Your task to perform on an android device: delete location history Image 0: 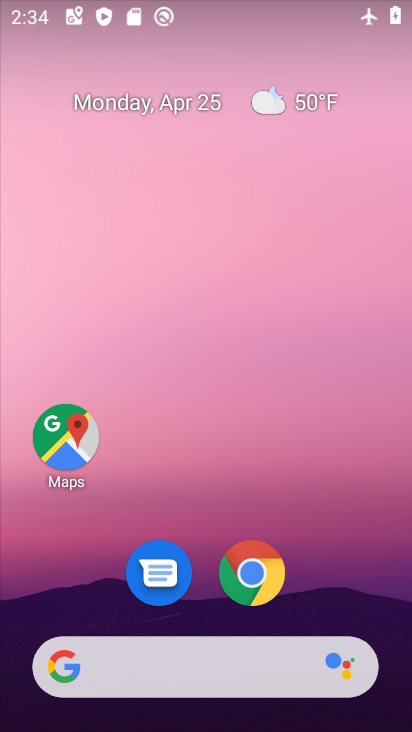
Step 0: drag from (337, 545) to (320, 24)
Your task to perform on an android device: delete location history Image 1: 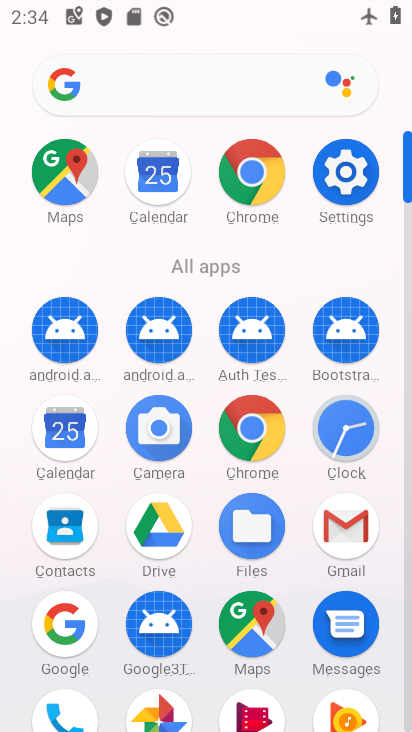
Step 1: click (358, 165)
Your task to perform on an android device: delete location history Image 2: 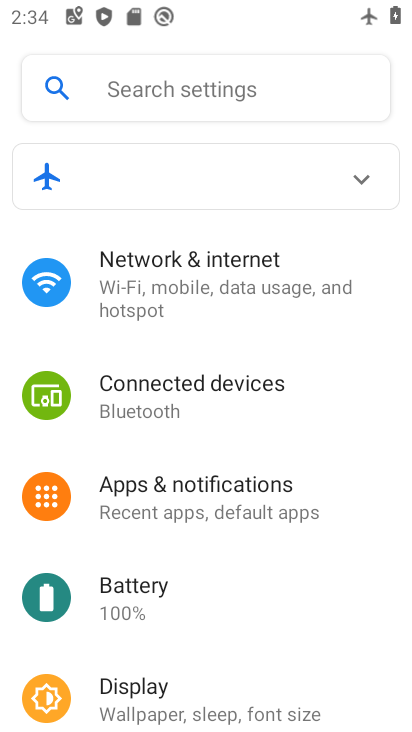
Step 2: press home button
Your task to perform on an android device: delete location history Image 3: 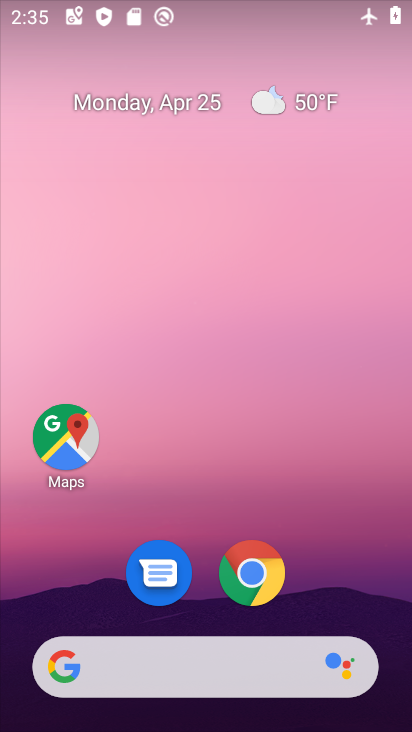
Step 3: drag from (363, 366) to (408, 158)
Your task to perform on an android device: delete location history Image 4: 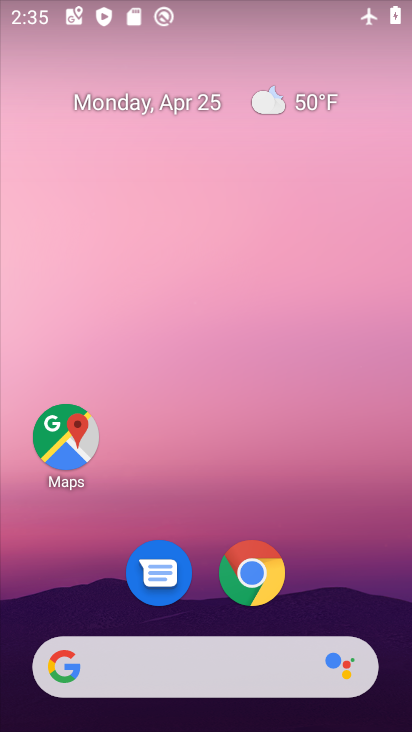
Step 4: drag from (333, 578) to (306, 25)
Your task to perform on an android device: delete location history Image 5: 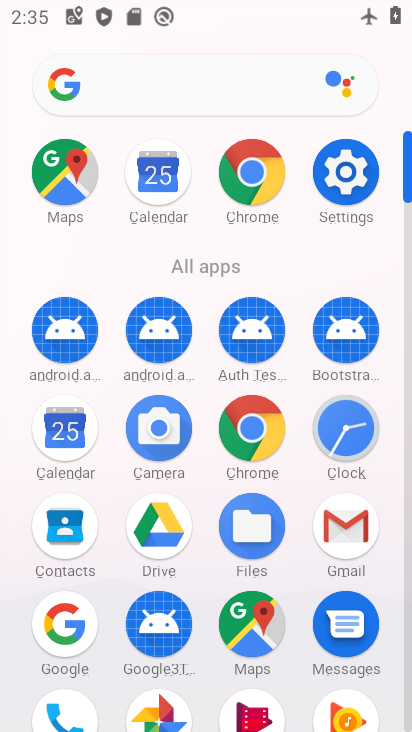
Step 5: click (352, 174)
Your task to perform on an android device: delete location history Image 6: 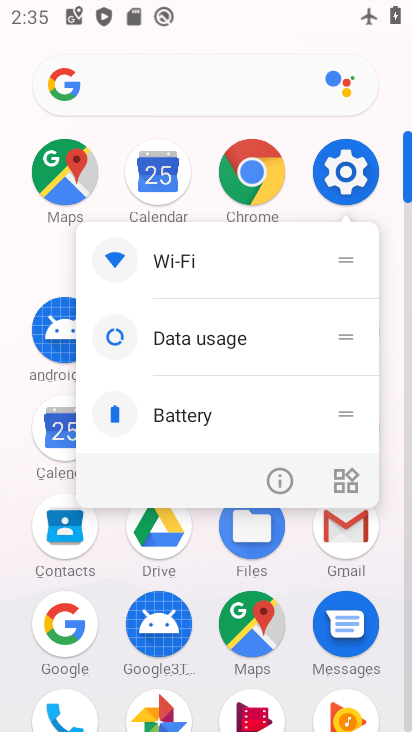
Step 6: click (352, 174)
Your task to perform on an android device: delete location history Image 7: 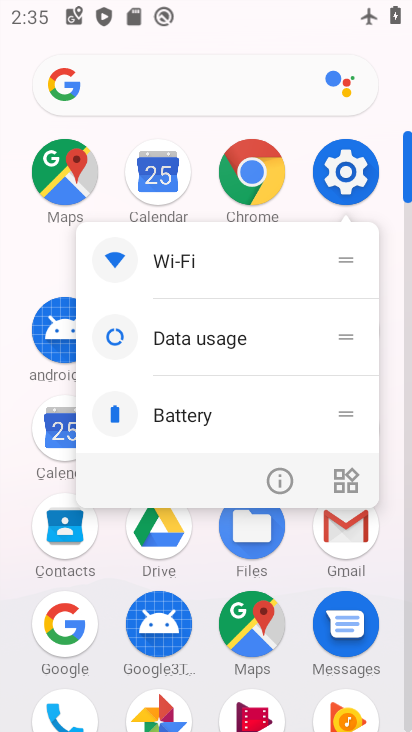
Step 7: click (64, 171)
Your task to perform on an android device: delete location history Image 8: 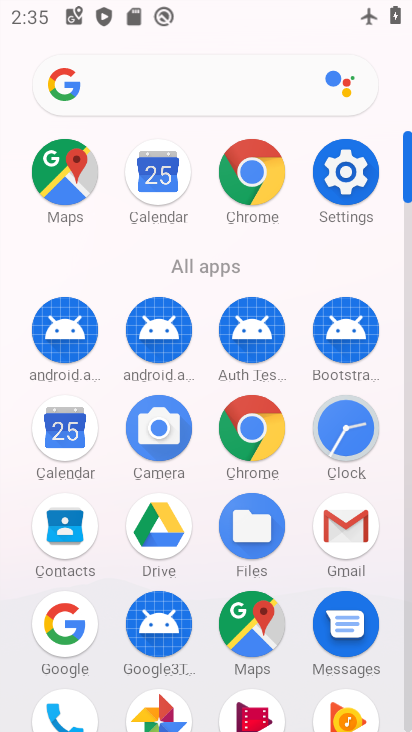
Step 8: click (55, 177)
Your task to perform on an android device: delete location history Image 9: 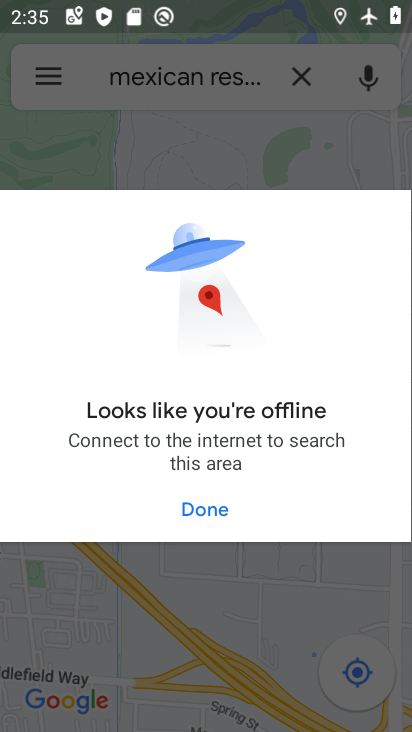
Step 9: click (223, 509)
Your task to perform on an android device: delete location history Image 10: 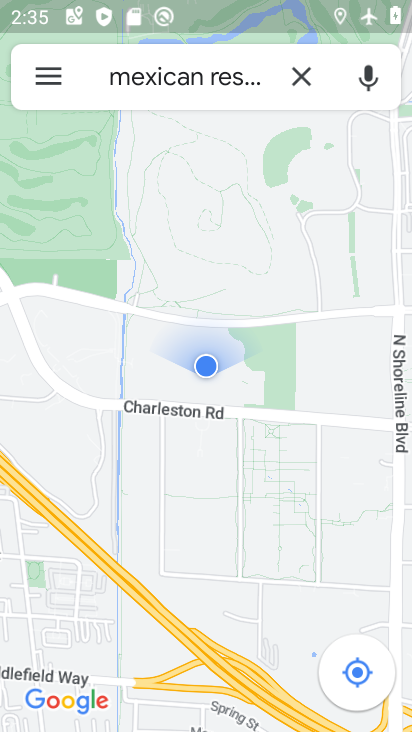
Step 10: click (47, 78)
Your task to perform on an android device: delete location history Image 11: 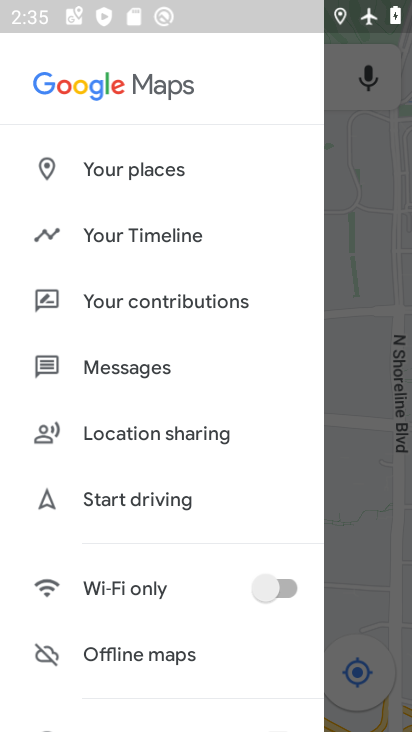
Step 11: click (148, 243)
Your task to perform on an android device: delete location history Image 12: 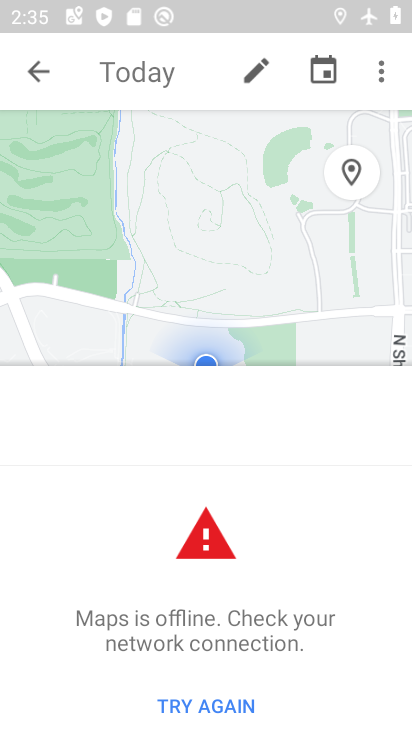
Step 12: click (214, 709)
Your task to perform on an android device: delete location history Image 13: 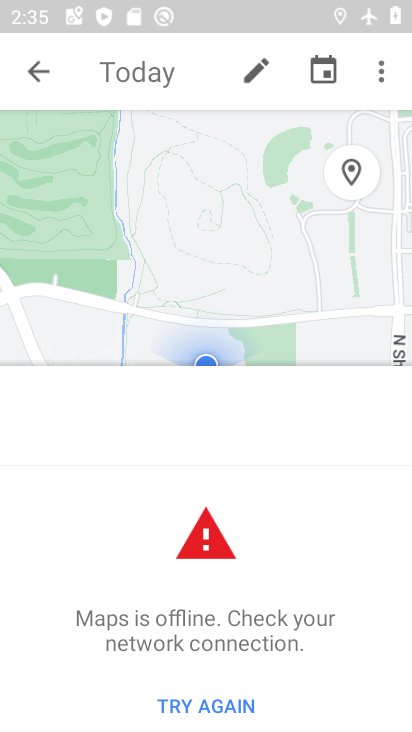
Step 13: click (372, 60)
Your task to perform on an android device: delete location history Image 14: 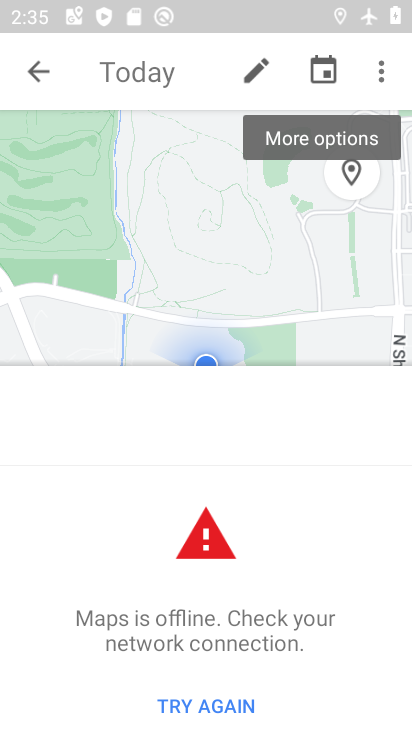
Step 14: click (372, 59)
Your task to perform on an android device: delete location history Image 15: 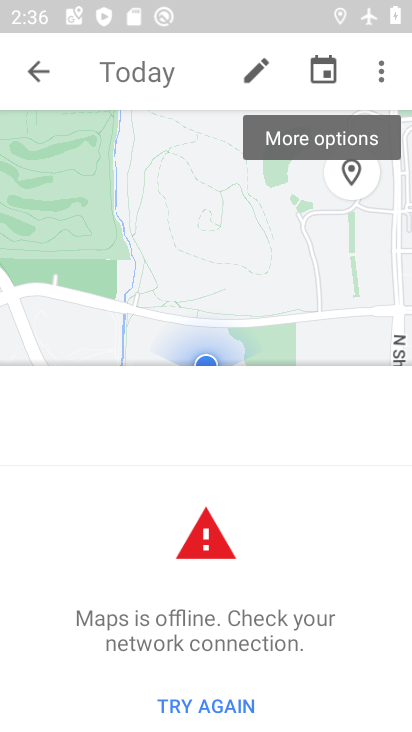
Step 15: click (371, 60)
Your task to perform on an android device: delete location history Image 16: 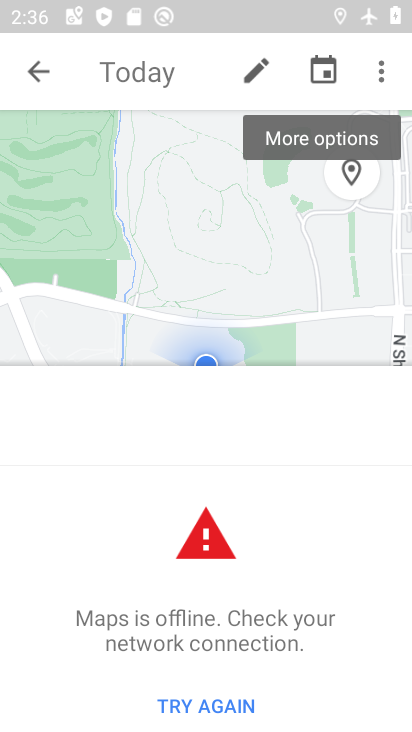
Step 16: click (375, 74)
Your task to perform on an android device: delete location history Image 17: 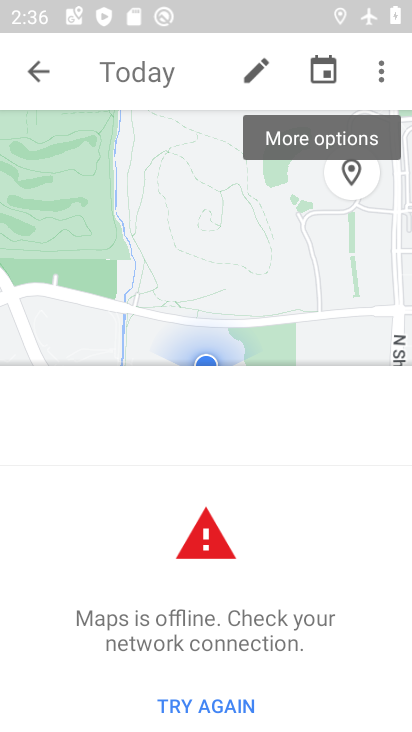
Step 17: click (375, 74)
Your task to perform on an android device: delete location history Image 18: 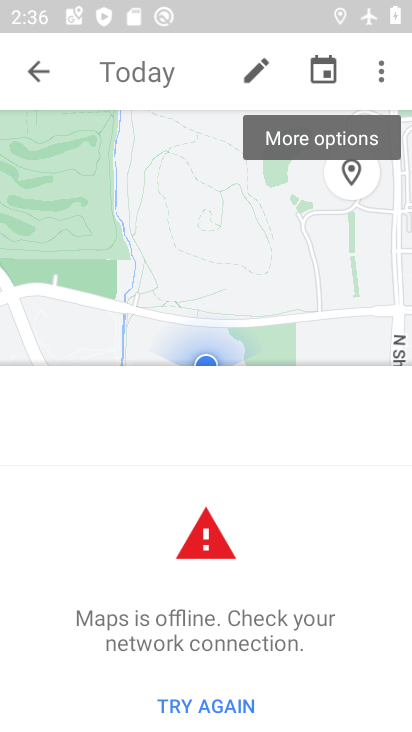
Step 18: click (373, 71)
Your task to perform on an android device: delete location history Image 19: 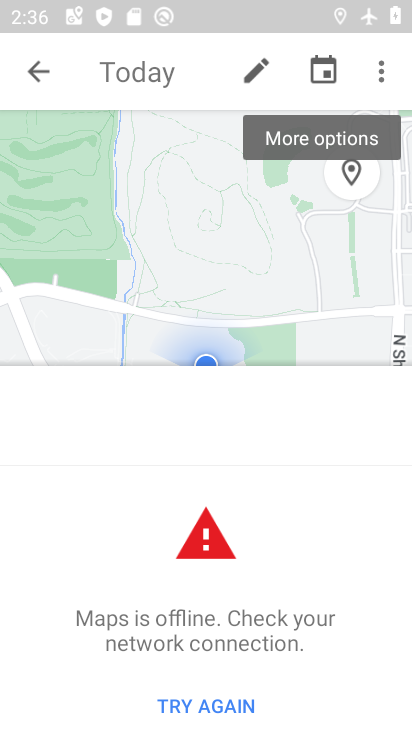
Step 19: click (383, 78)
Your task to perform on an android device: delete location history Image 20: 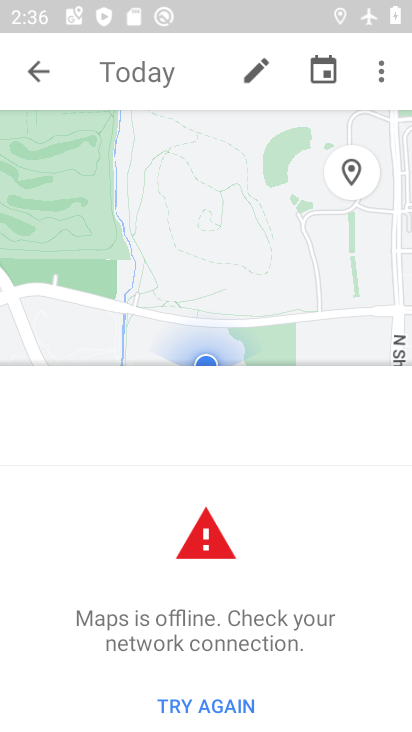
Step 20: click (388, 68)
Your task to perform on an android device: delete location history Image 21: 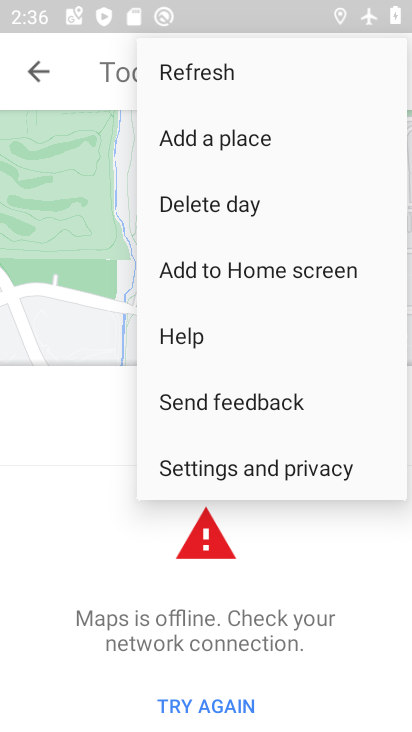
Step 21: click (192, 468)
Your task to perform on an android device: delete location history Image 22: 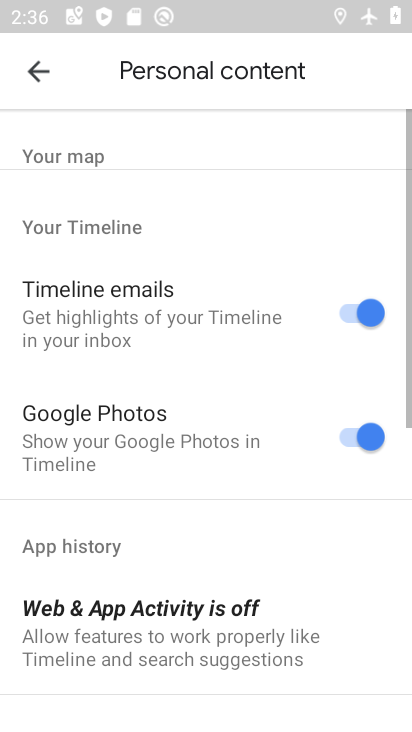
Step 22: drag from (152, 616) to (309, 186)
Your task to perform on an android device: delete location history Image 23: 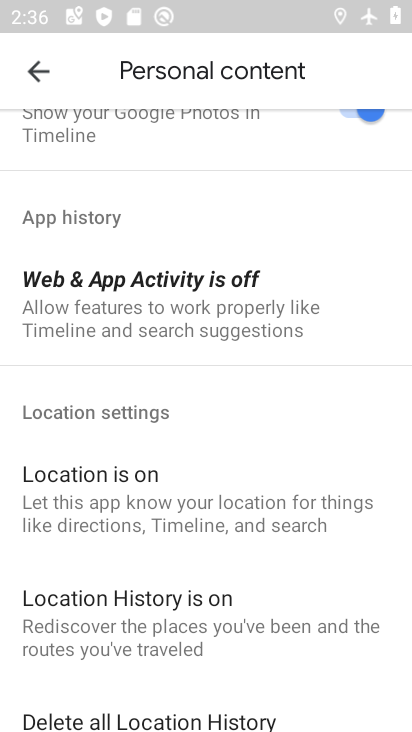
Step 23: drag from (255, 313) to (235, 565)
Your task to perform on an android device: delete location history Image 24: 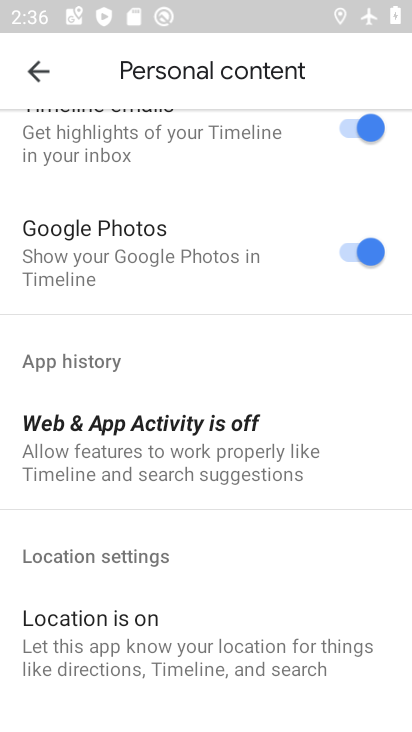
Step 24: drag from (194, 536) to (267, 149)
Your task to perform on an android device: delete location history Image 25: 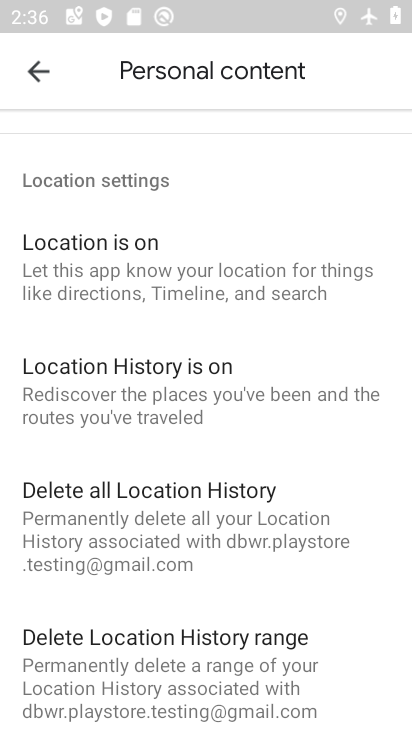
Step 25: click (151, 518)
Your task to perform on an android device: delete location history Image 26: 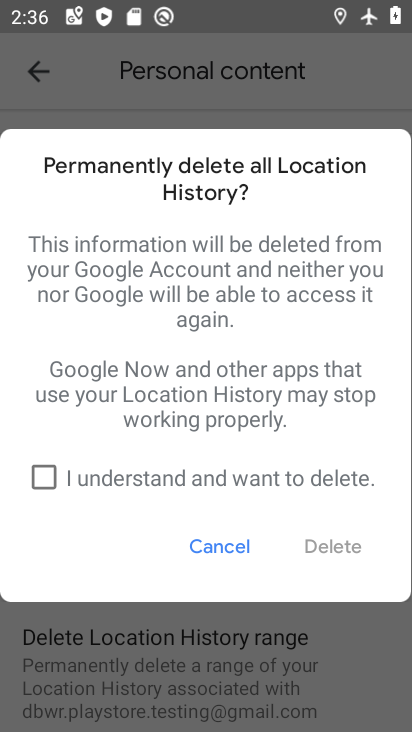
Step 26: click (37, 485)
Your task to perform on an android device: delete location history Image 27: 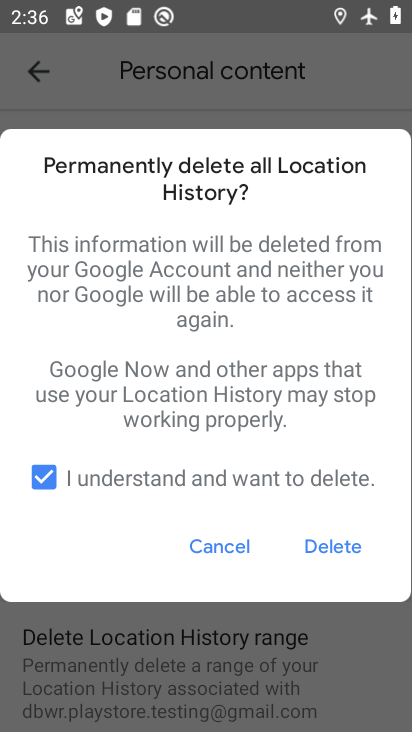
Step 27: click (347, 549)
Your task to perform on an android device: delete location history Image 28: 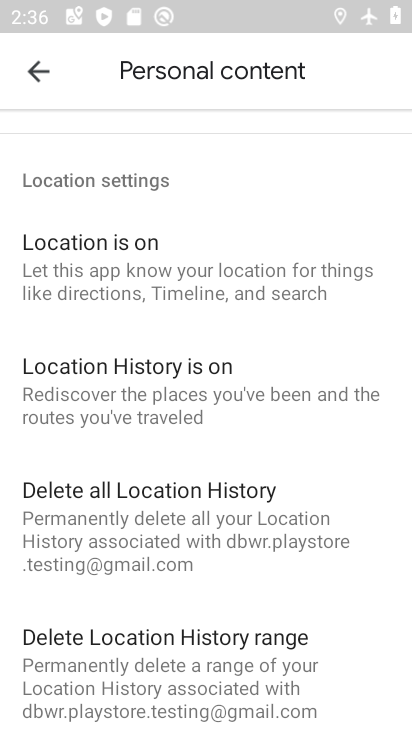
Step 28: task complete